Your task to perform on an android device: Open the phone app and click the voicemail tab. Image 0: 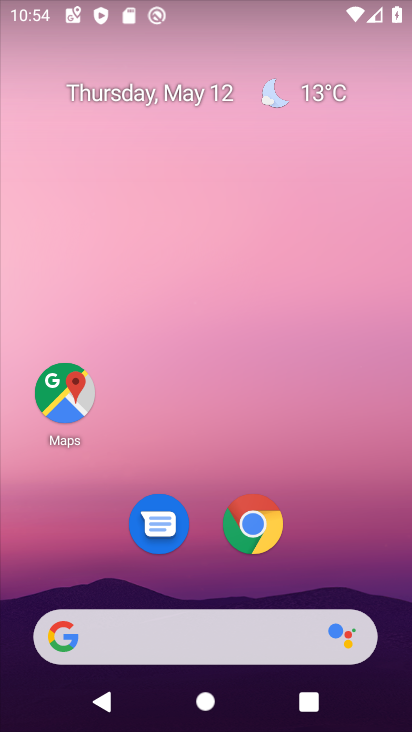
Step 0: drag from (351, 516) to (332, 58)
Your task to perform on an android device: Open the phone app and click the voicemail tab. Image 1: 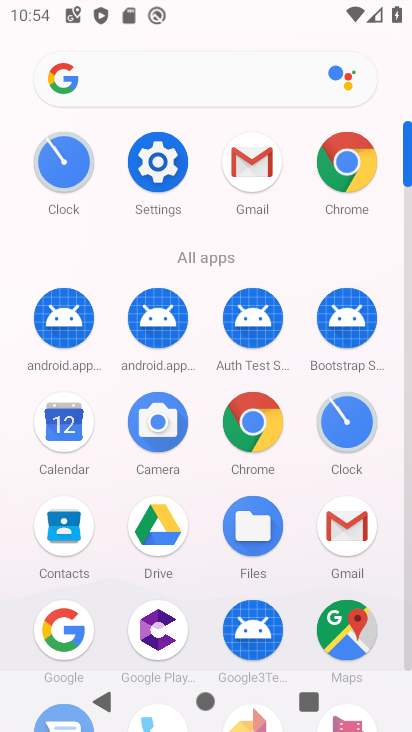
Step 1: drag from (109, 536) to (156, 241)
Your task to perform on an android device: Open the phone app and click the voicemail tab. Image 2: 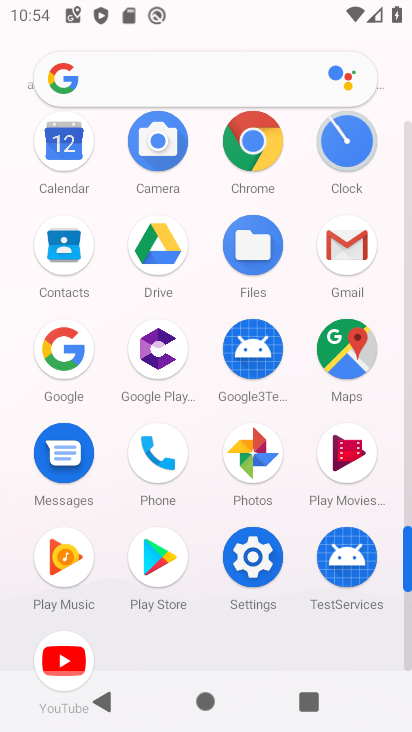
Step 2: click (157, 448)
Your task to perform on an android device: Open the phone app and click the voicemail tab. Image 3: 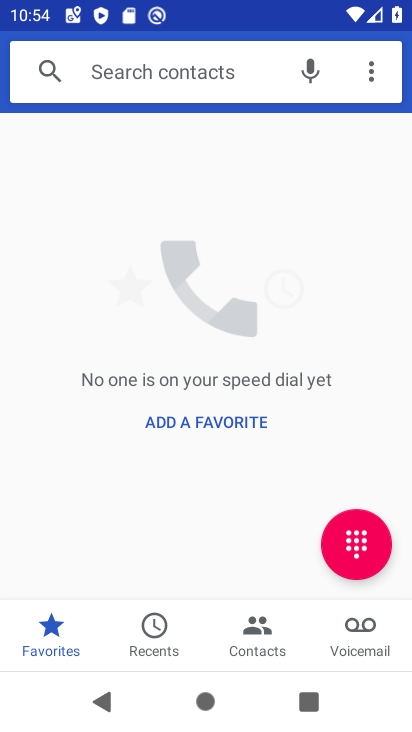
Step 3: click (349, 636)
Your task to perform on an android device: Open the phone app and click the voicemail tab. Image 4: 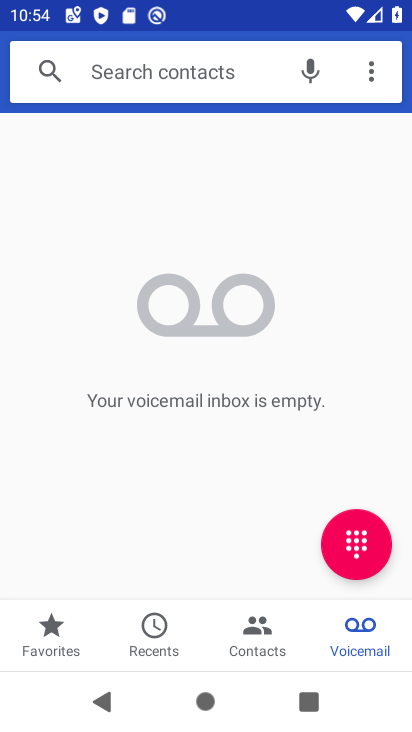
Step 4: task complete